Your task to perform on an android device: toggle location history Image 0: 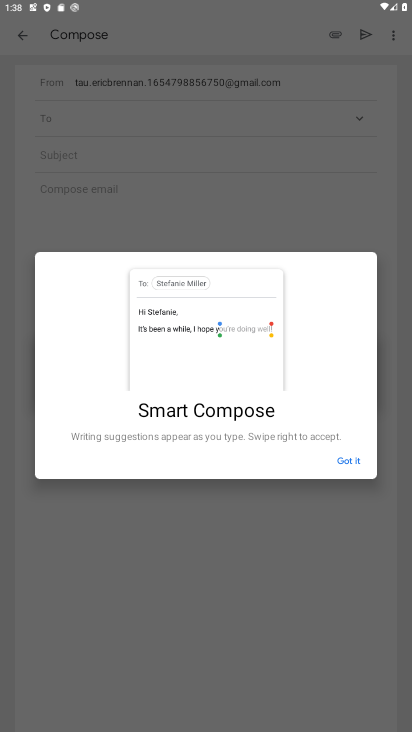
Step 0: press home button
Your task to perform on an android device: toggle location history Image 1: 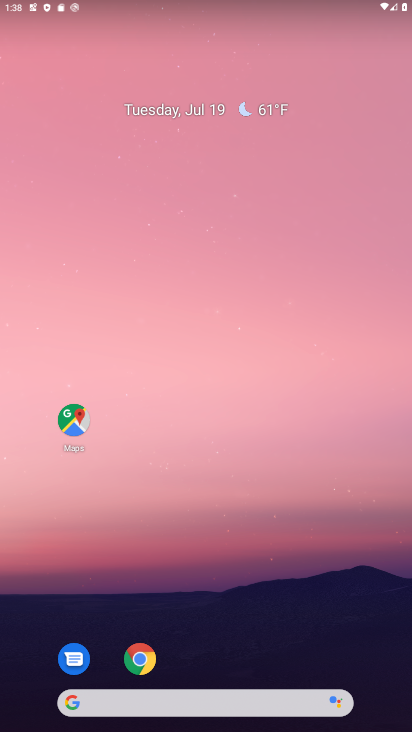
Step 1: drag from (303, 620) to (229, 77)
Your task to perform on an android device: toggle location history Image 2: 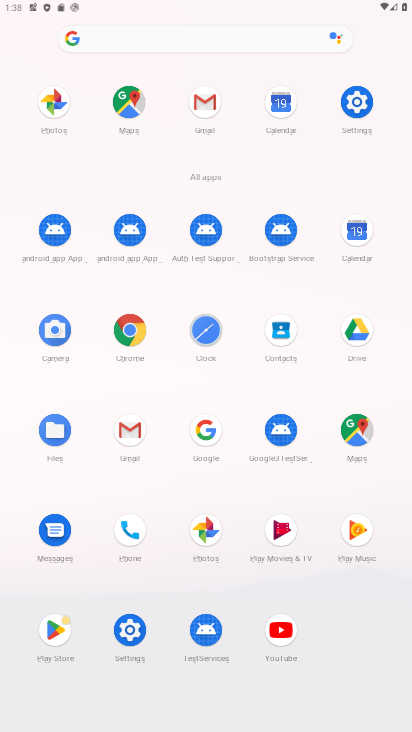
Step 2: click (137, 644)
Your task to perform on an android device: toggle location history Image 3: 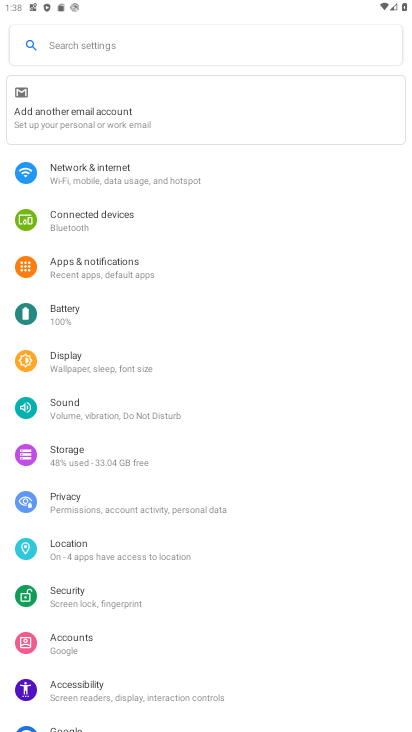
Step 3: click (107, 541)
Your task to perform on an android device: toggle location history Image 4: 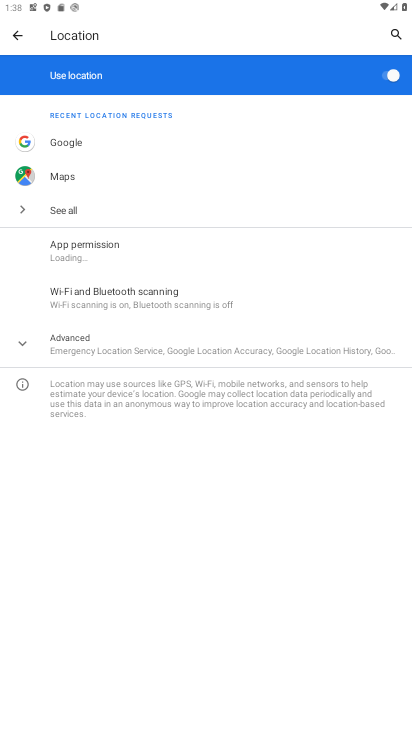
Step 4: click (61, 334)
Your task to perform on an android device: toggle location history Image 5: 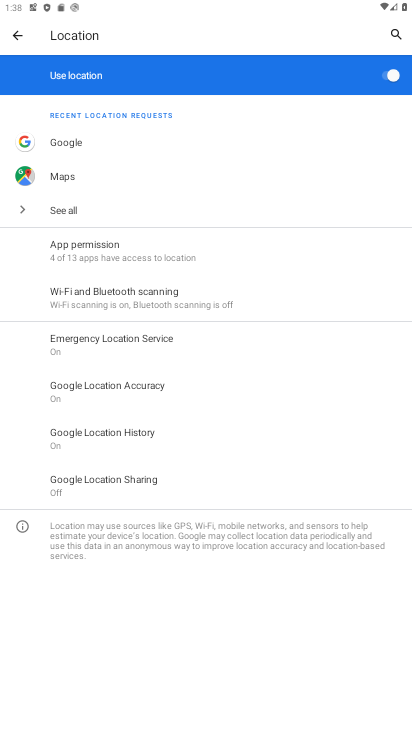
Step 5: click (156, 428)
Your task to perform on an android device: toggle location history Image 6: 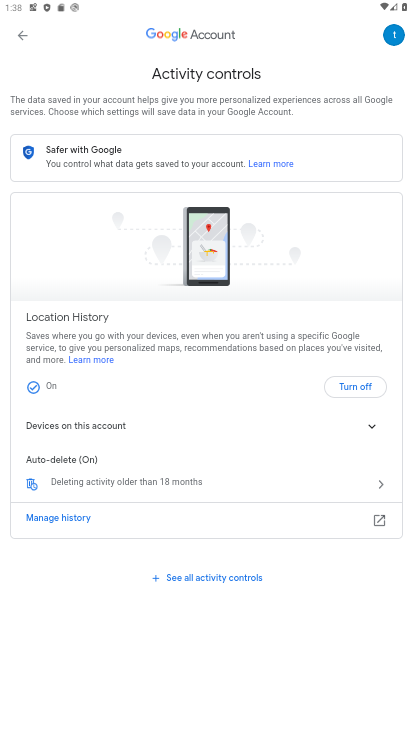
Step 6: click (340, 388)
Your task to perform on an android device: toggle location history Image 7: 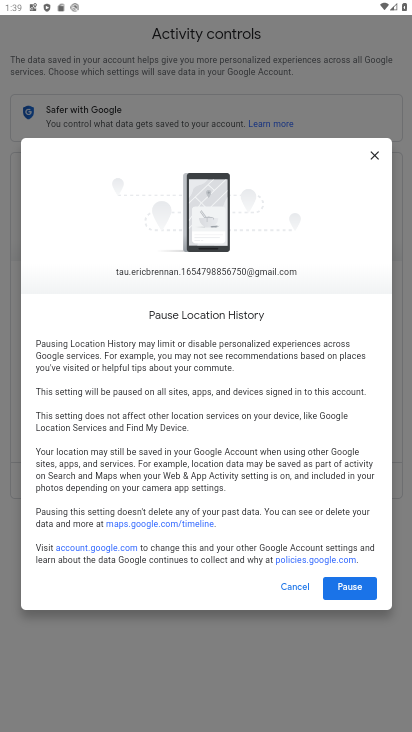
Step 7: click (348, 589)
Your task to perform on an android device: toggle location history Image 8: 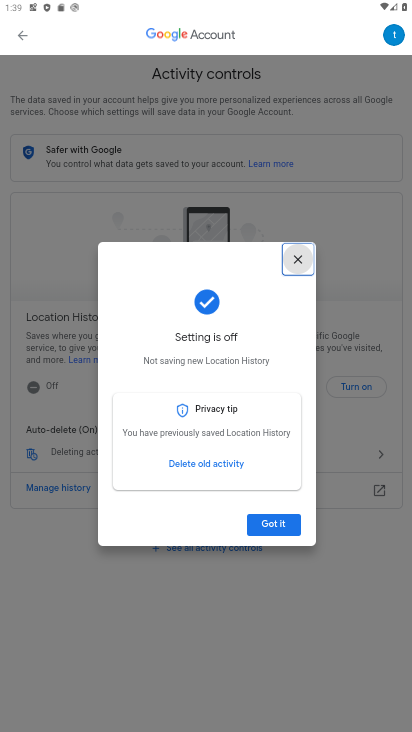
Step 8: click (283, 524)
Your task to perform on an android device: toggle location history Image 9: 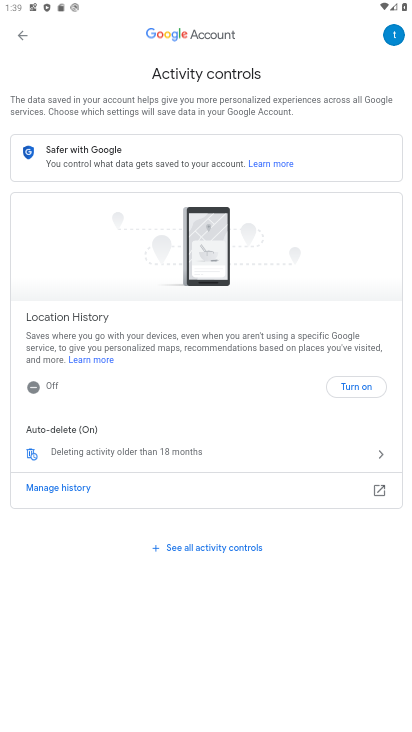
Step 9: task complete